Your task to perform on an android device: Play the last video I watched on Youtube Image 0: 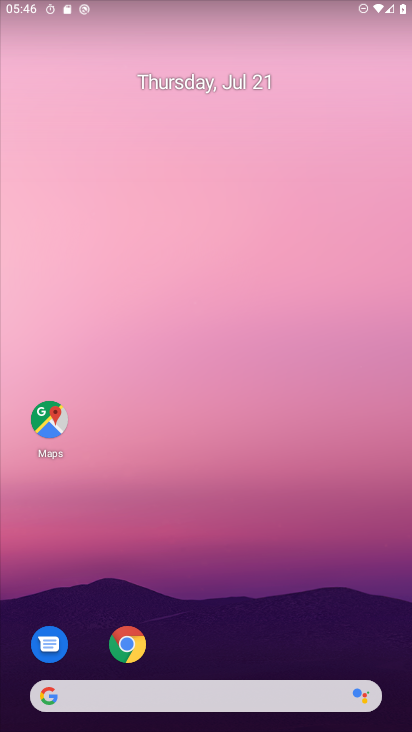
Step 0: drag from (174, 626) to (263, 109)
Your task to perform on an android device: Play the last video I watched on Youtube Image 1: 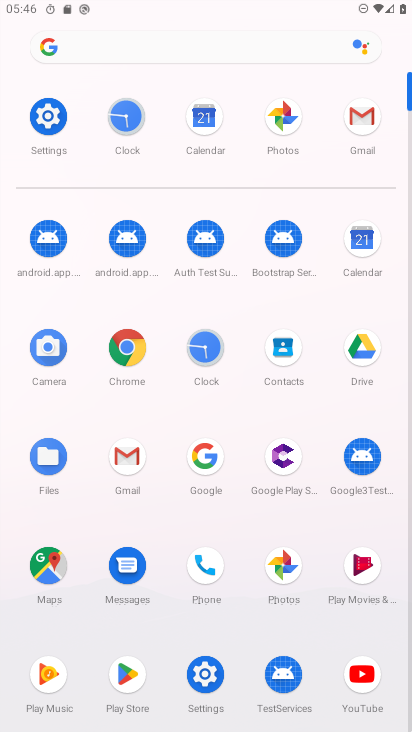
Step 1: click (360, 677)
Your task to perform on an android device: Play the last video I watched on Youtube Image 2: 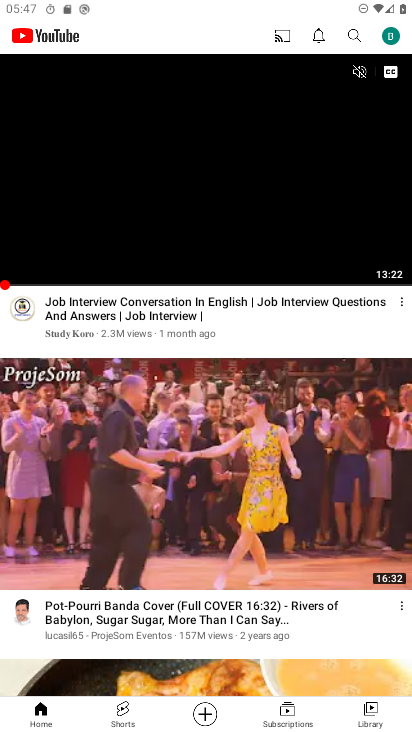
Step 2: click (366, 716)
Your task to perform on an android device: Play the last video I watched on Youtube Image 3: 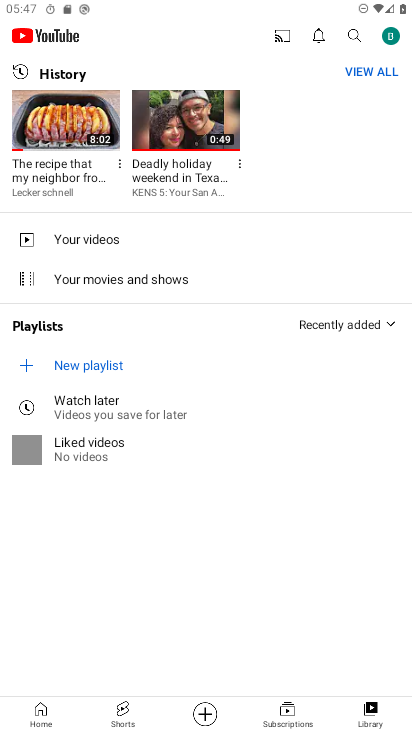
Step 3: task complete